Your task to perform on an android device: Open Android settings Image 0: 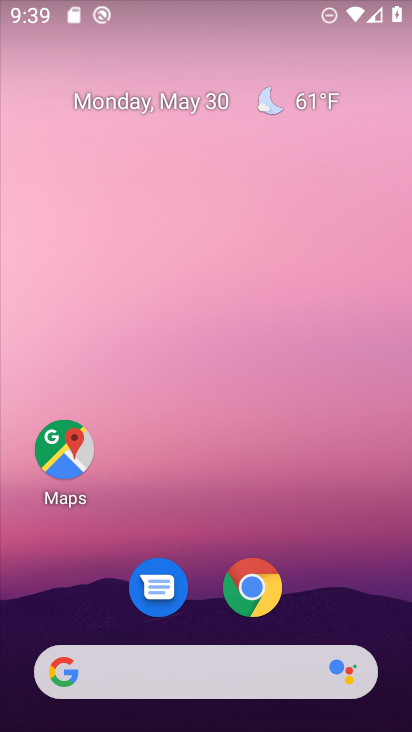
Step 0: drag from (217, 639) to (331, 39)
Your task to perform on an android device: Open Android settings Image 1: 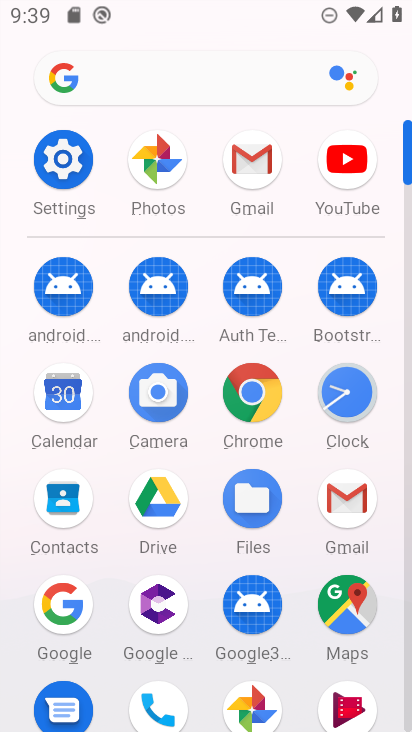
Step 1: click (72, 161)
Your task to perform on an android device: Open Android settings Image 2: 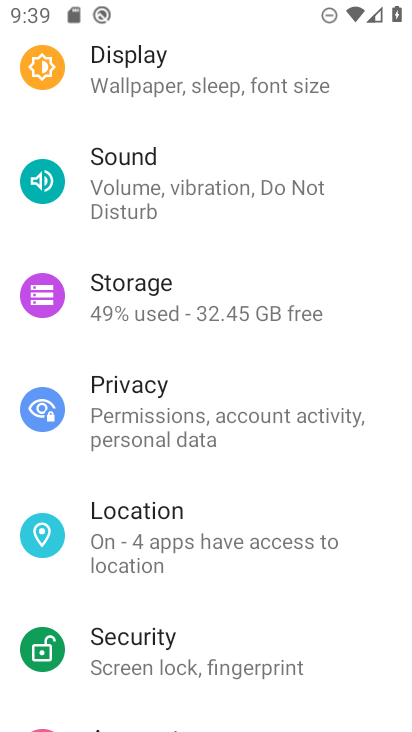
Step 2: drag from (191, 170) to (180, 727)
Your task to perform on an android device: Open Android settings Image 3: 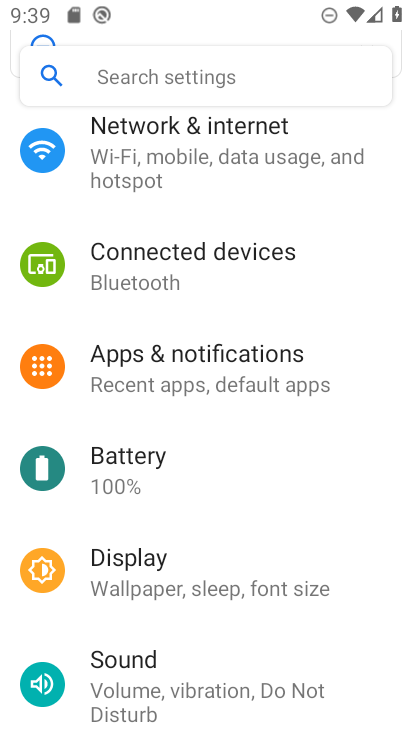
Step 3: click (167, 169)
Your task to perform on an android device: Open Android settings Image 4: 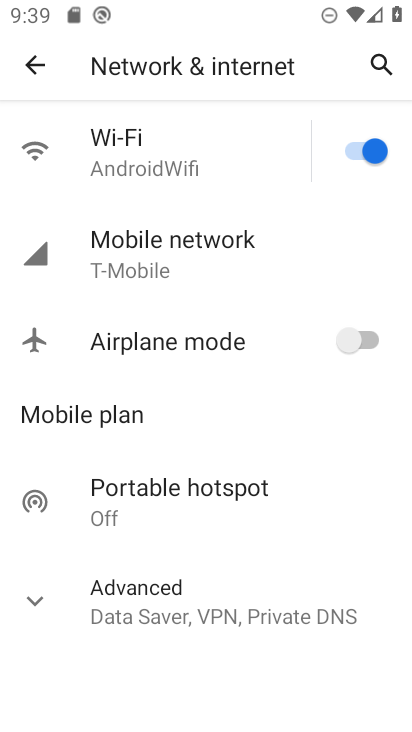
Step 4: click (34, 70)
Your task to perform on an android device: Open Android settings Image 5: 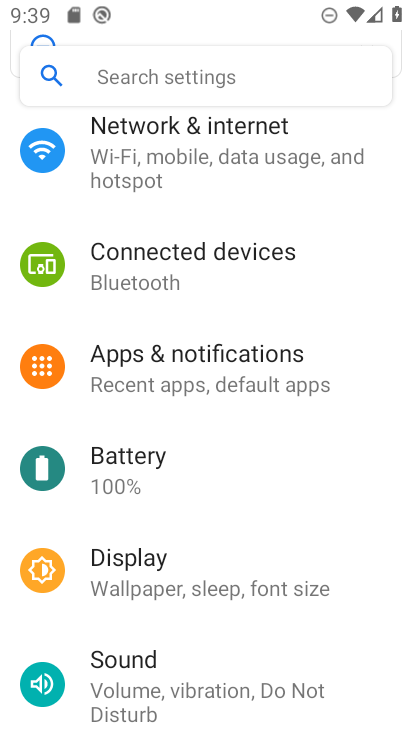
Step 5: task complete